Your task to perform on an android device: open app "Chime – Mobile Banking" (install if not already installed) and enter user name: "bullfrog@inbox.com" and password: "breaker" Image 0: 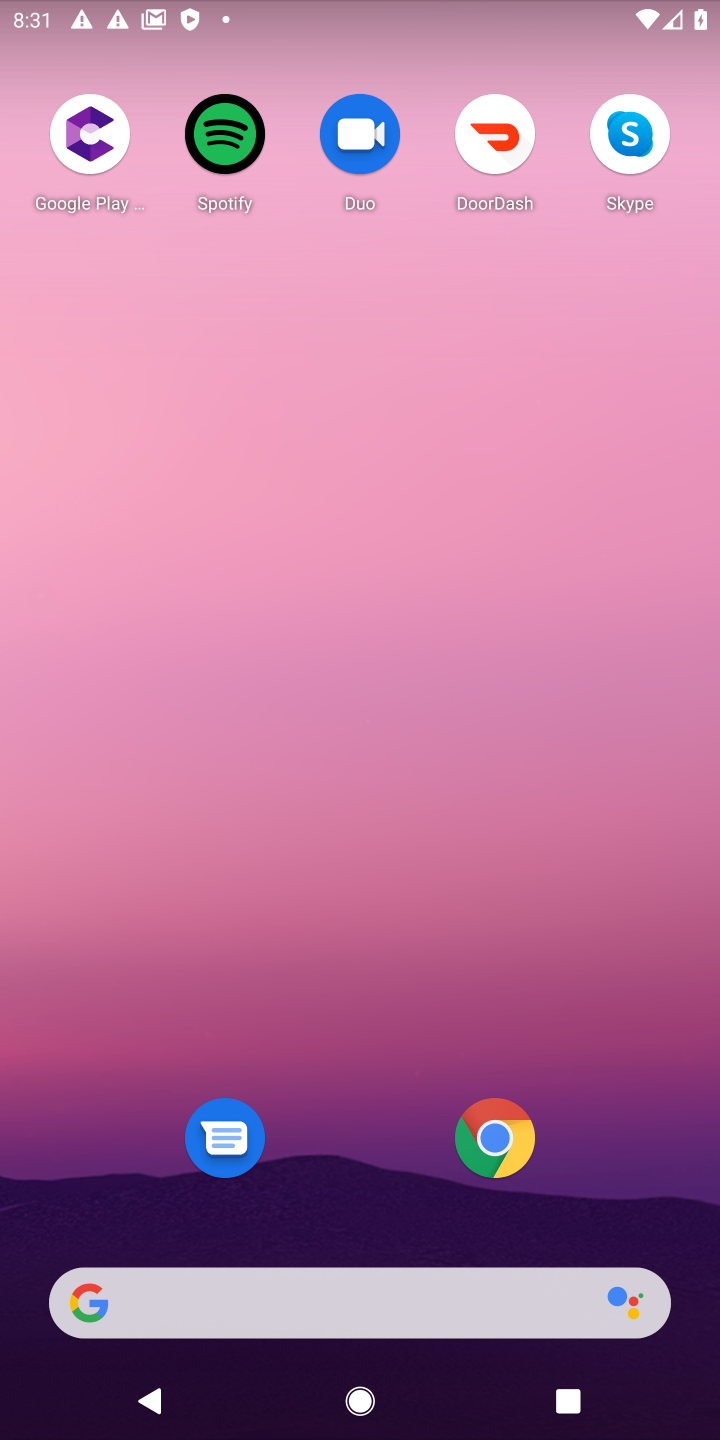
Step 0: drag from (393, 1256) to (258, 30)
Your task to perform on an android device: open app "Chime – Mobile Banking" (install if not already installed) and enter user name: "bullfrog@inbox.com" and password: "breaker" Image 1: 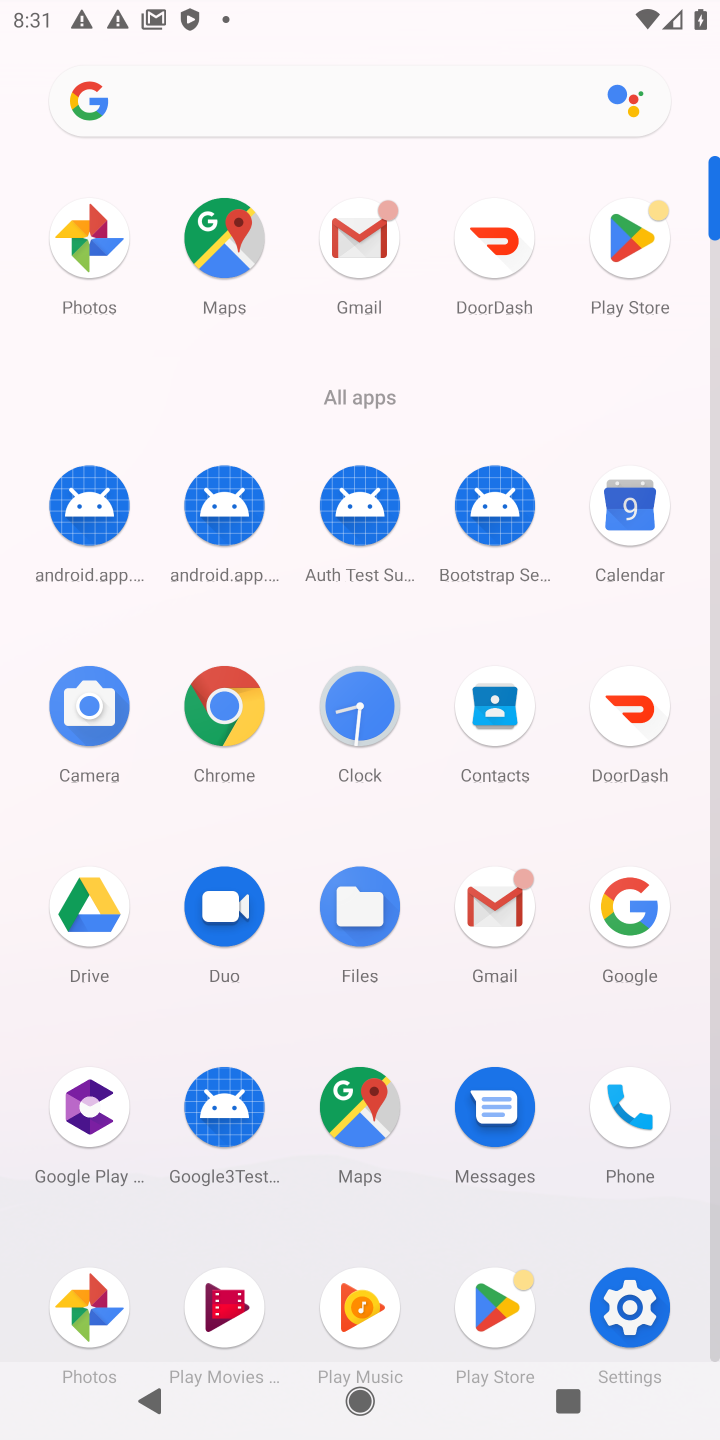
Step 1: click (606, 225)
Your task to perform on an android device: open app "Chime – Mobile Banking" (install if not already installed) and enter user name: "bullfrog@inbox.com" and password: "breaker" Image 2: 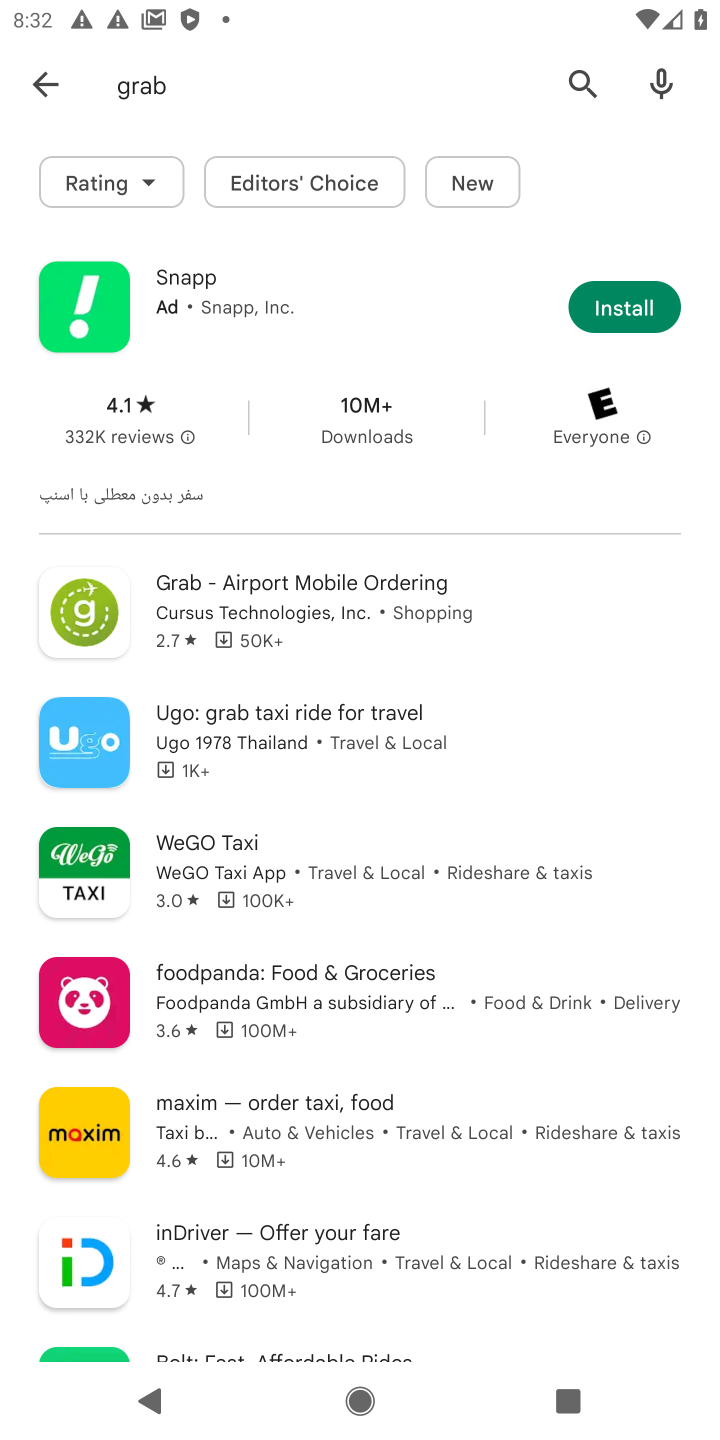
Step 2: click (616, 315)
Your task to perform on an android device: open app "Chime – Mobile Banking" (install if not already installed) and enter user name: "bullfrog@inbox.com" and password: "breaker" Image 3: 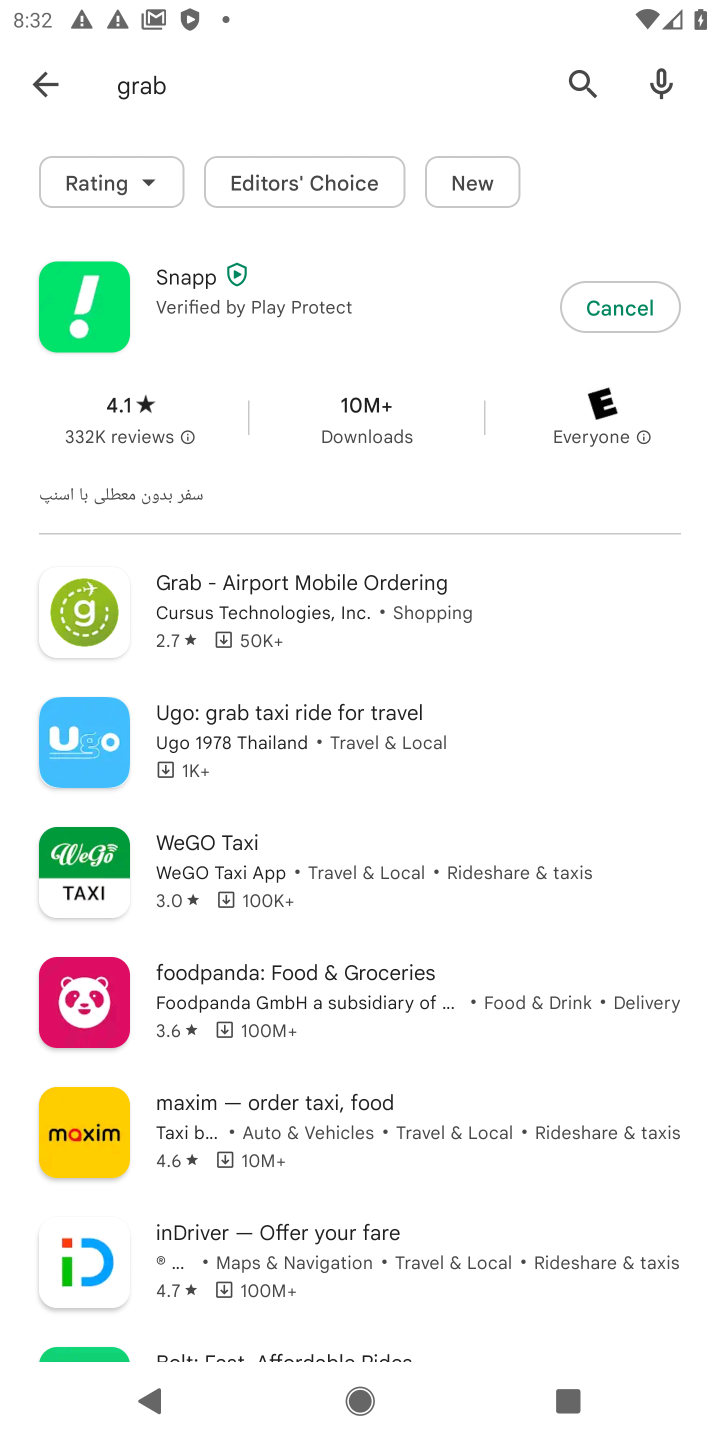
Step 3: task complete